Your task to perform on an android device: Add razer huntsman to the cart on costco.com Image 0: 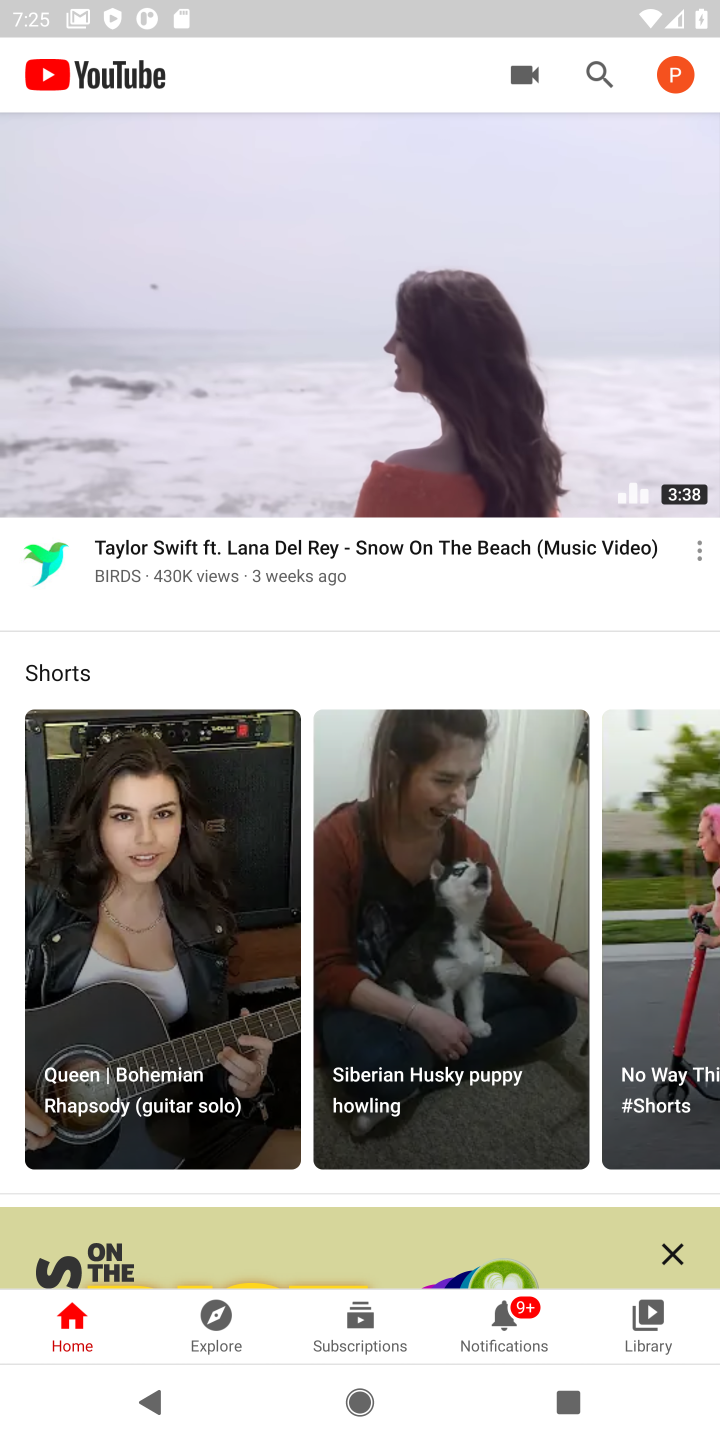
Step 0: press home button
Your task to perform on an android device: Add razer huntsman to the cart on costco.com Image 1: 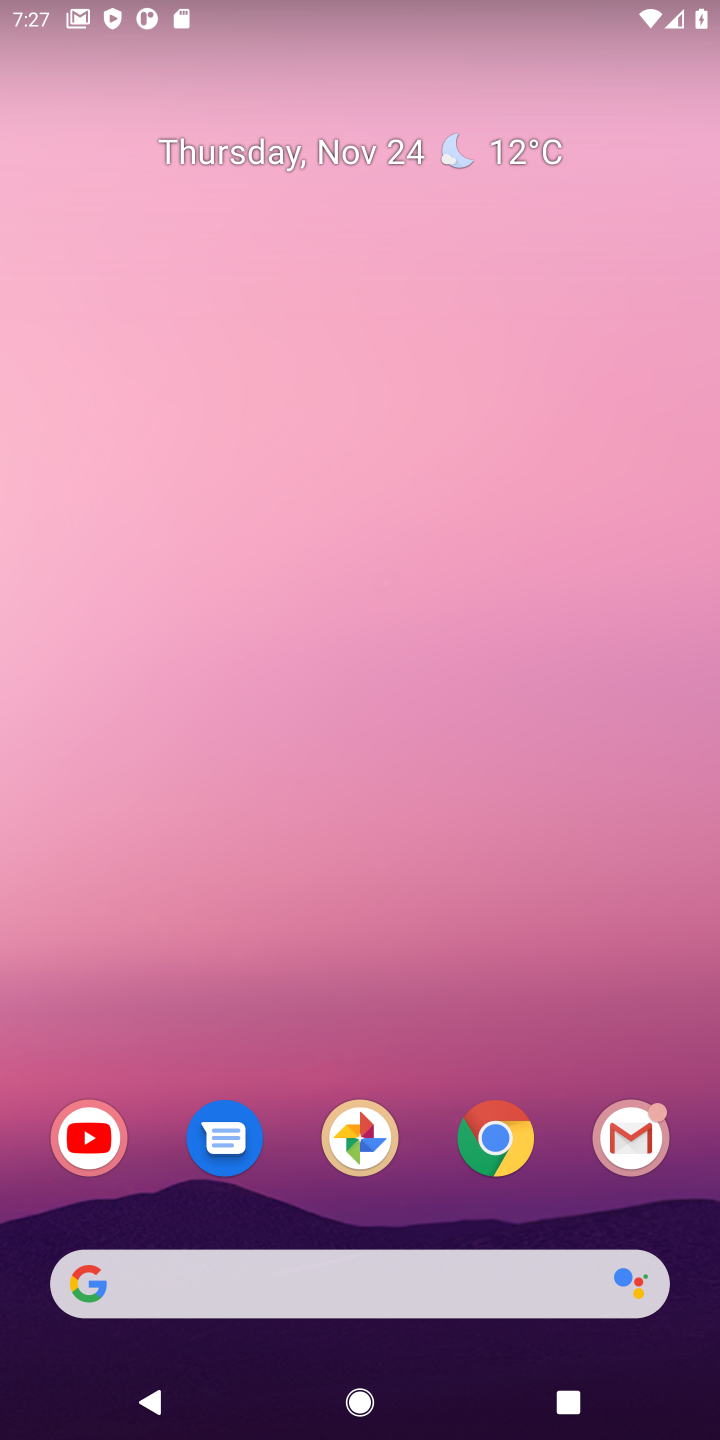
Step 1: click (489, 1150)
Your task to perform on an android device: Add razer huntsman to the cart on costco.com Image 2: 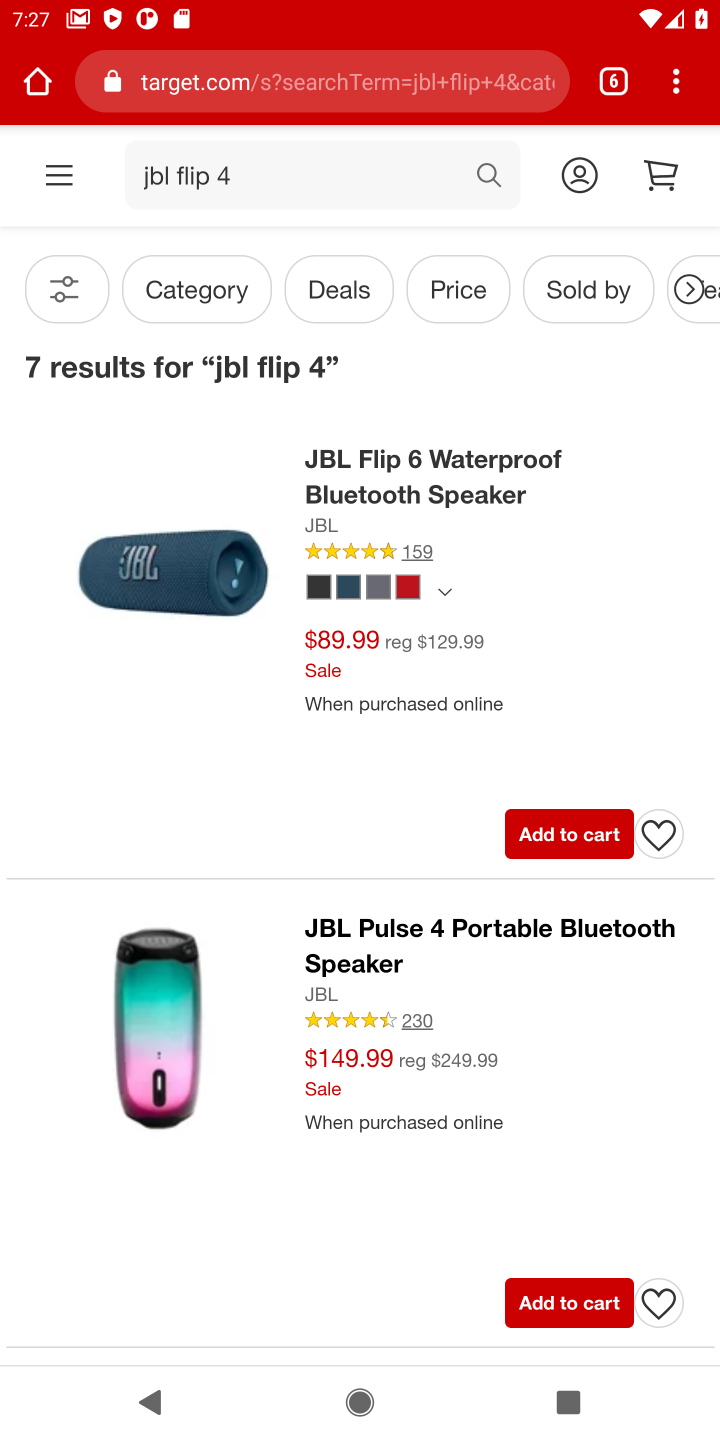
Step 2: click (622, 70)
Your task to perform on an android device: Add razer huntsman to the cart on costco.com Image 3: 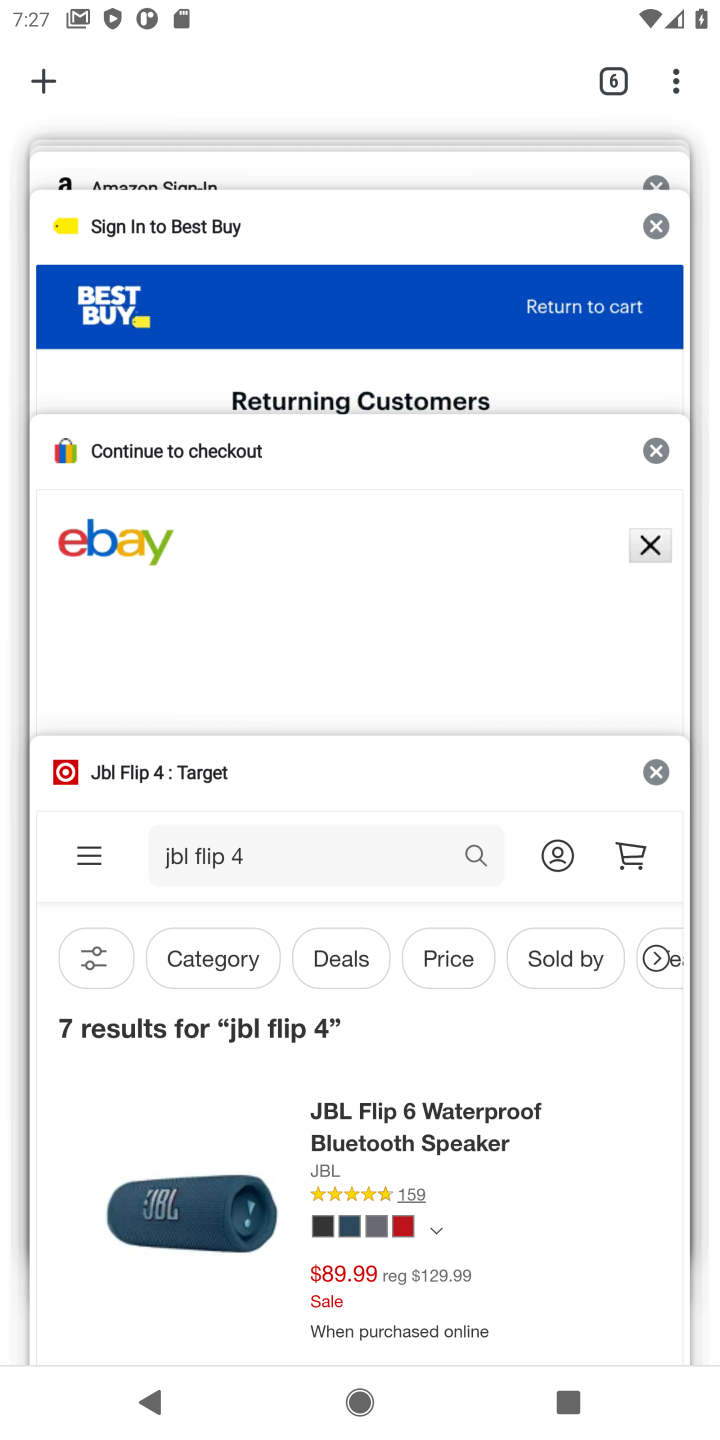
Step 3: drag from (212, 264) to (307, 1374)
Your task to perform on an android device: Add razer huntsman to the cart on costco.com Image 4: 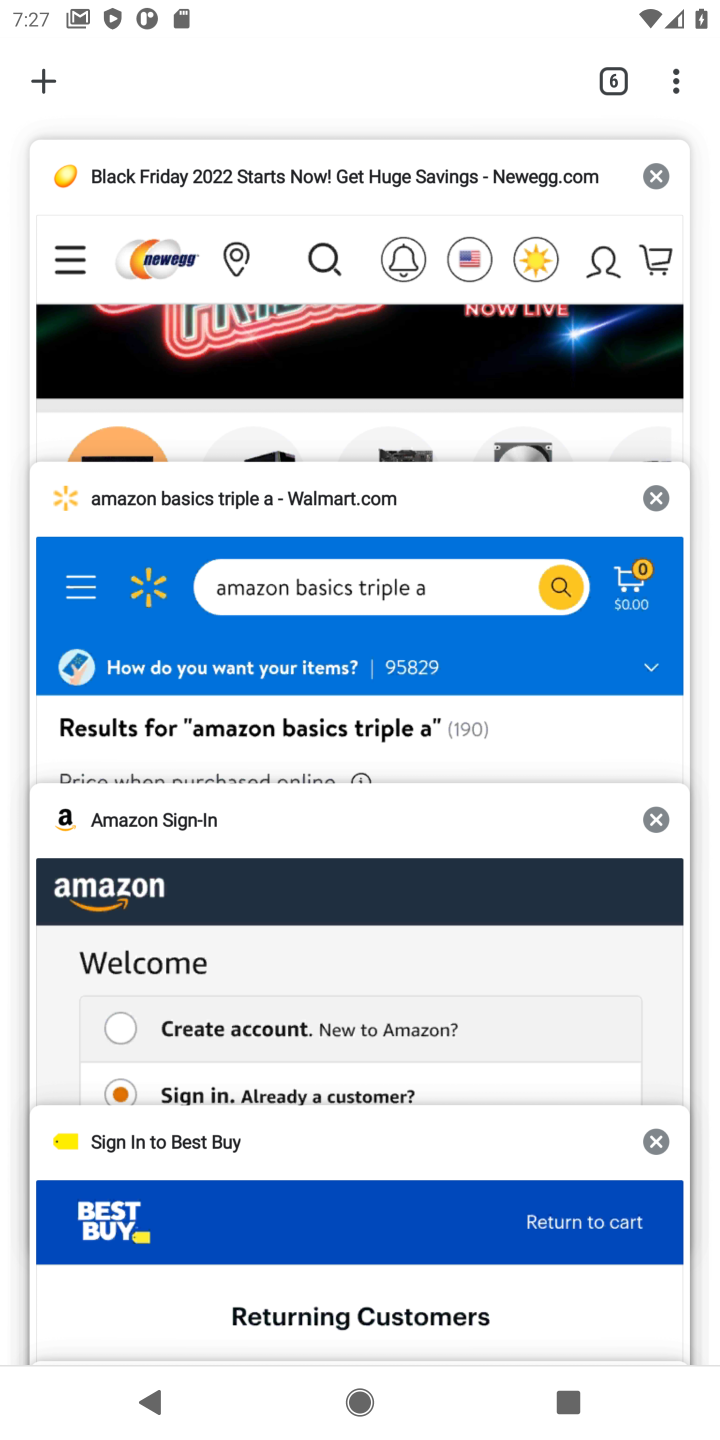
Step 4: click (45, 87)
Your task to perform on an android device: Add razer huntsman to the cart on costco.com Image 5: 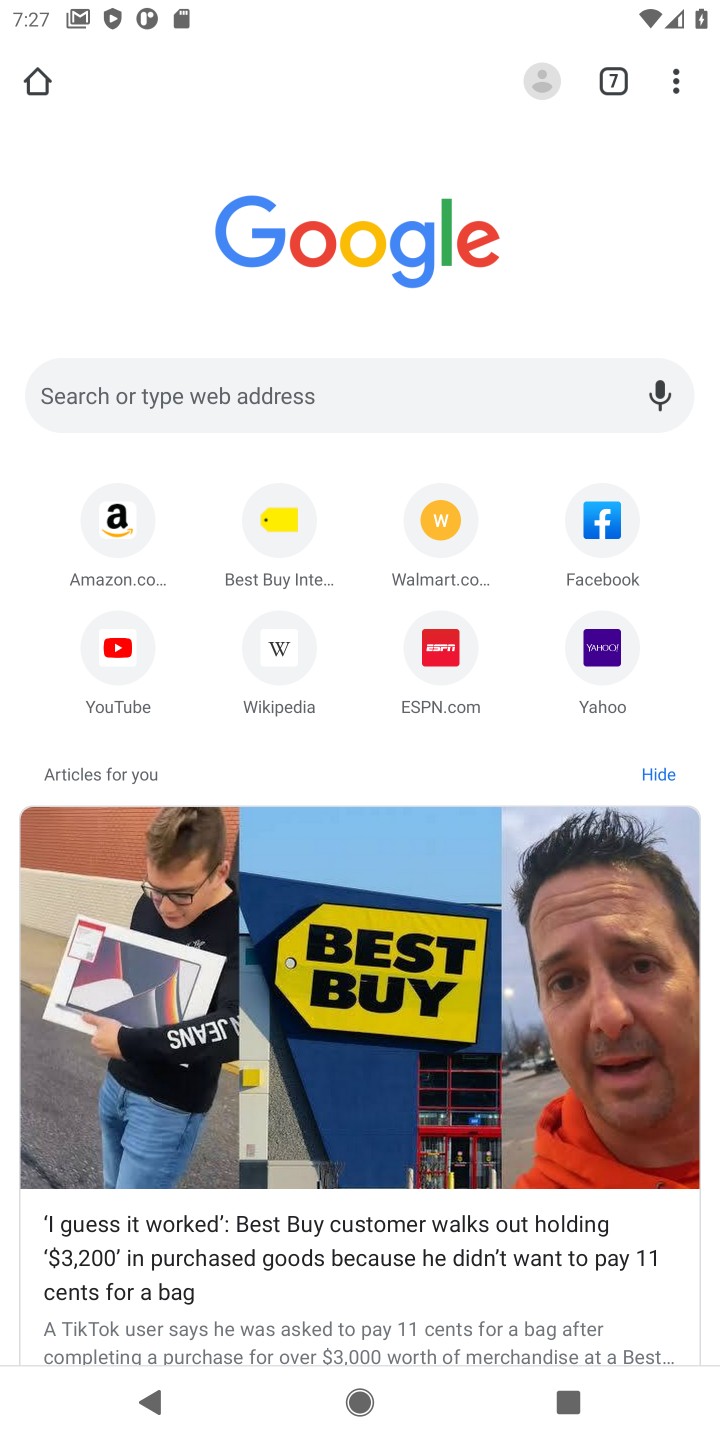
Step 5: click (146, 404)
Your task to perform on an android device: Add razer huntsman to the cart on costco.com Image 6: 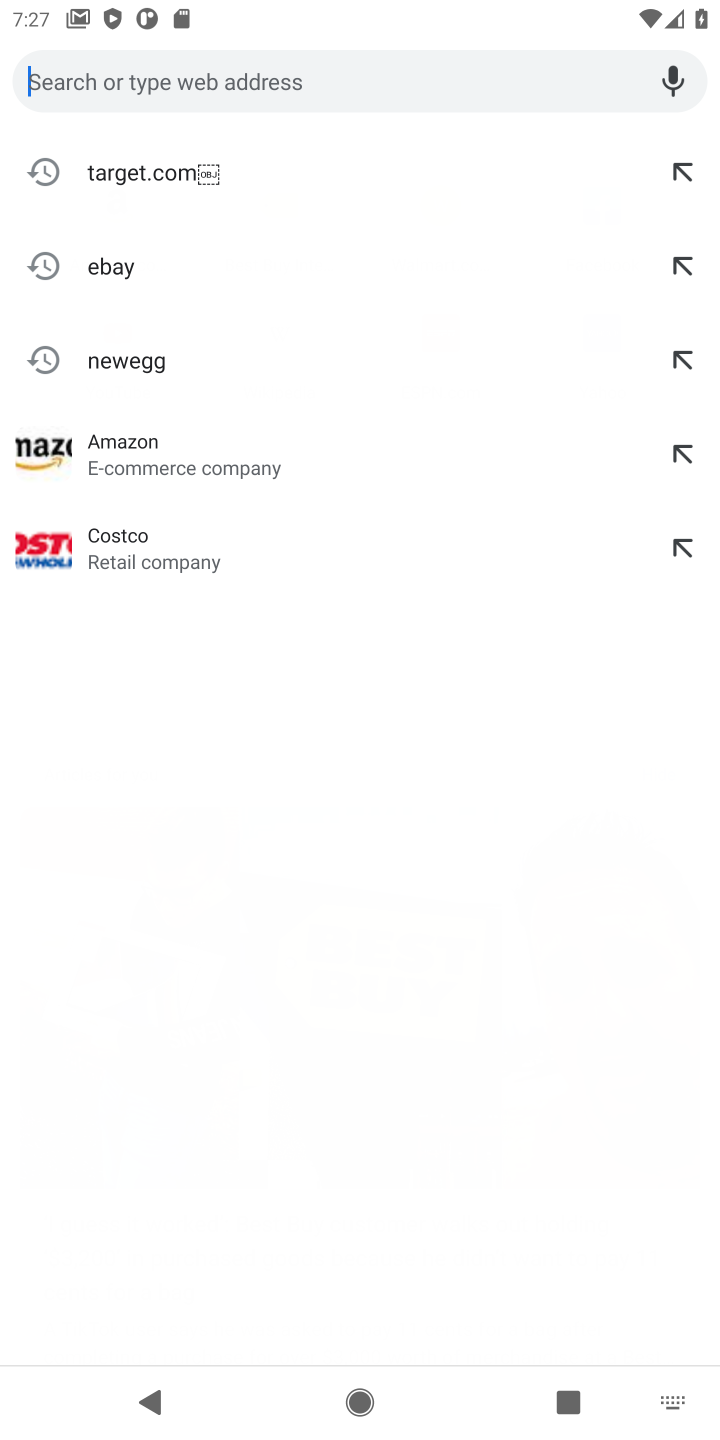
Step 6: click (146, 404)
Your task to perform on an android device: Add razer huntsman to the cart on costco.com Image 7: 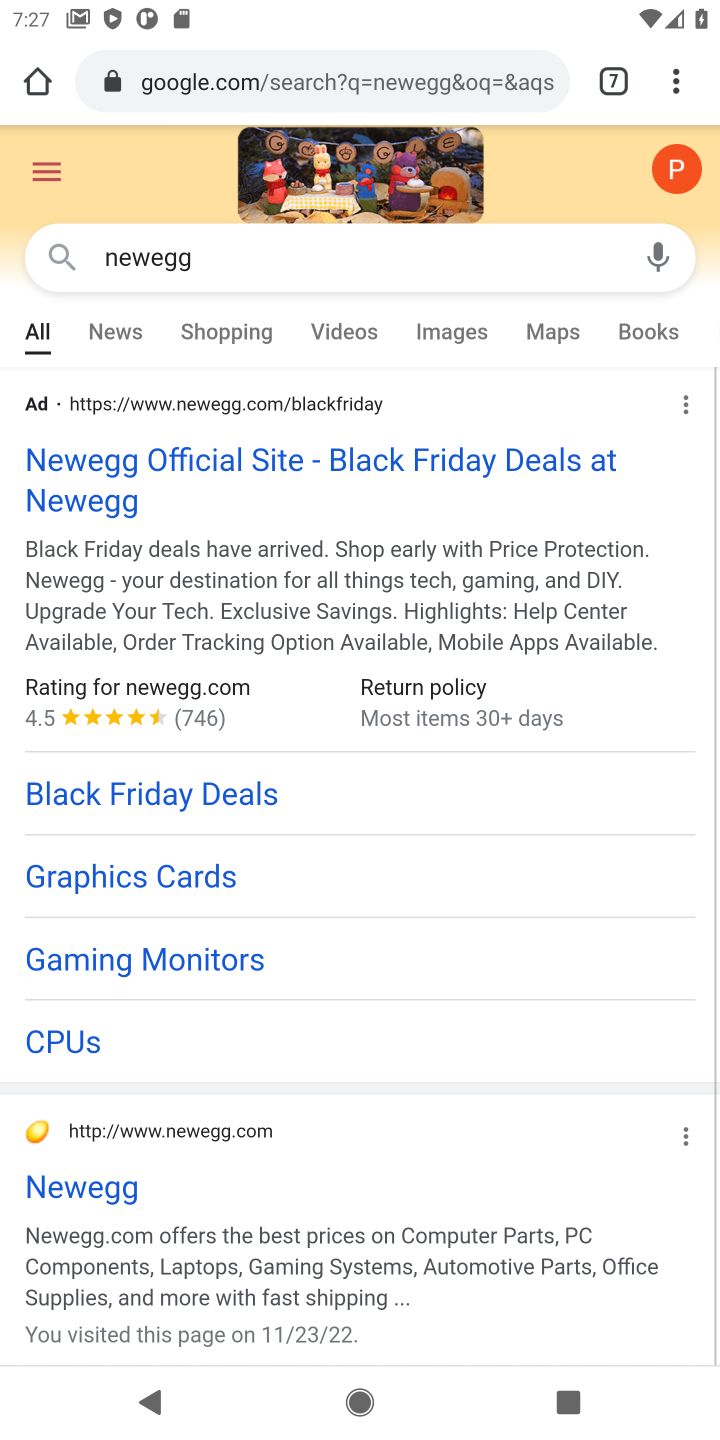
Step 7: press back button
Your task to perform on an android device: Add razer huntsman to the cart on costco.com Image 8: 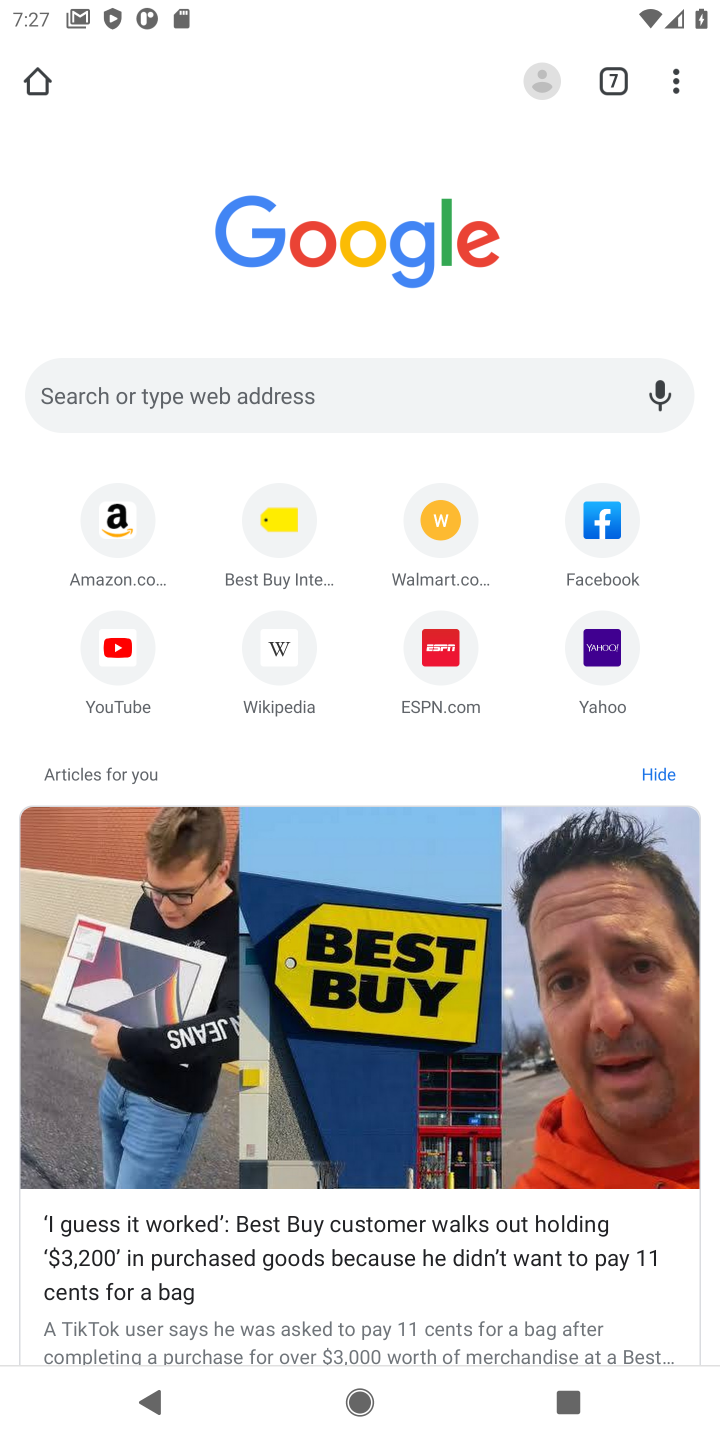
Step 8: click (152, 412)
Your task to perform on an android device: Add razer huntsman to the cart on costco.com Image 9: 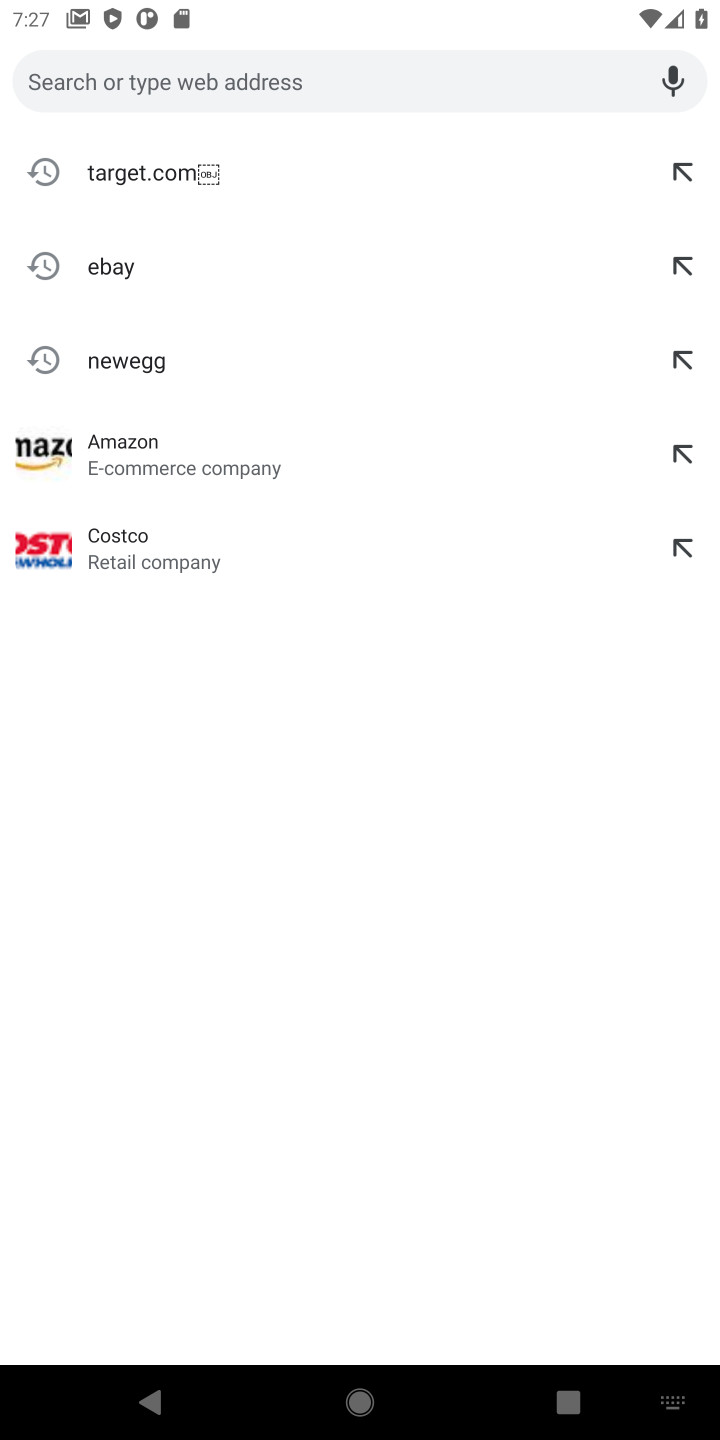
Step 9: click (123, 550)
Your task to perform on an android device: Add razer huntsman to the cart on costco.com Image 10: 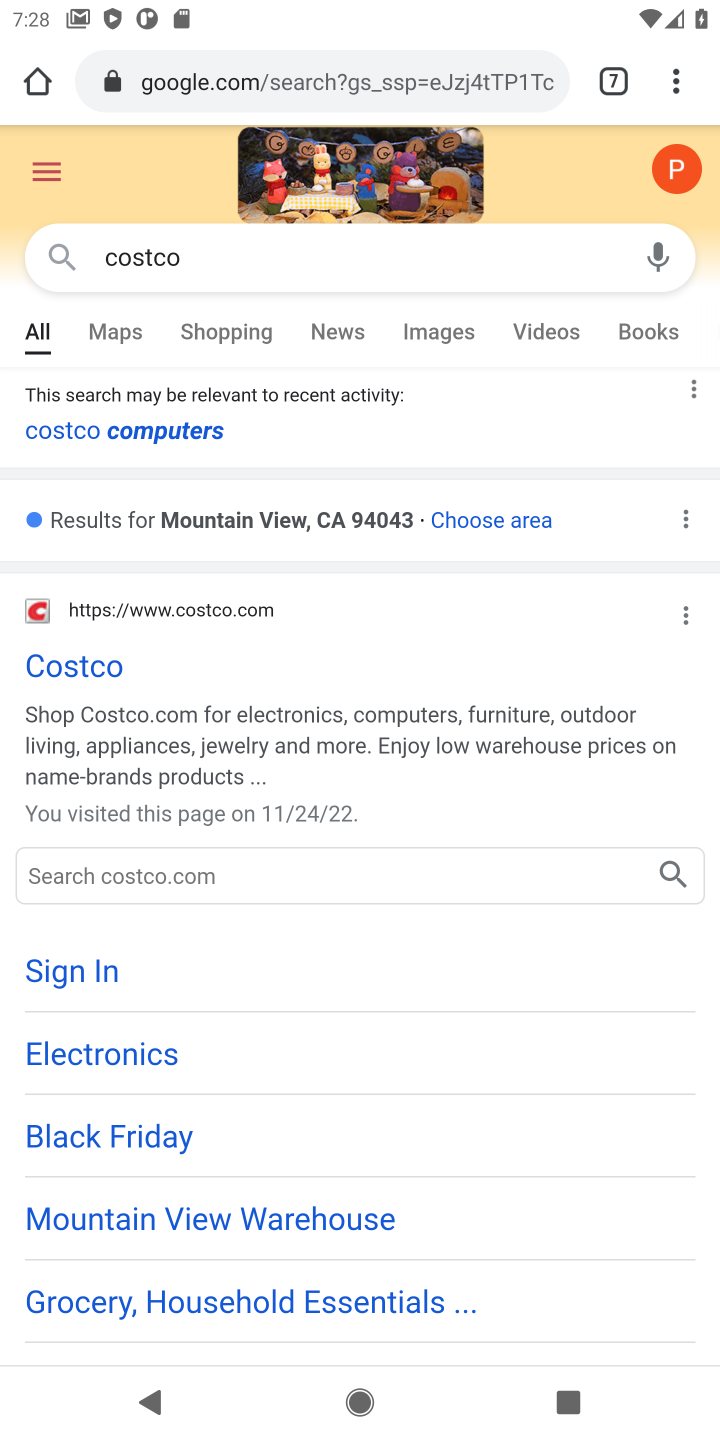
Step 10: click (80, 660)
Your task to perform on an android device: Add razer huntsman to the cart on costco.com Image 11: 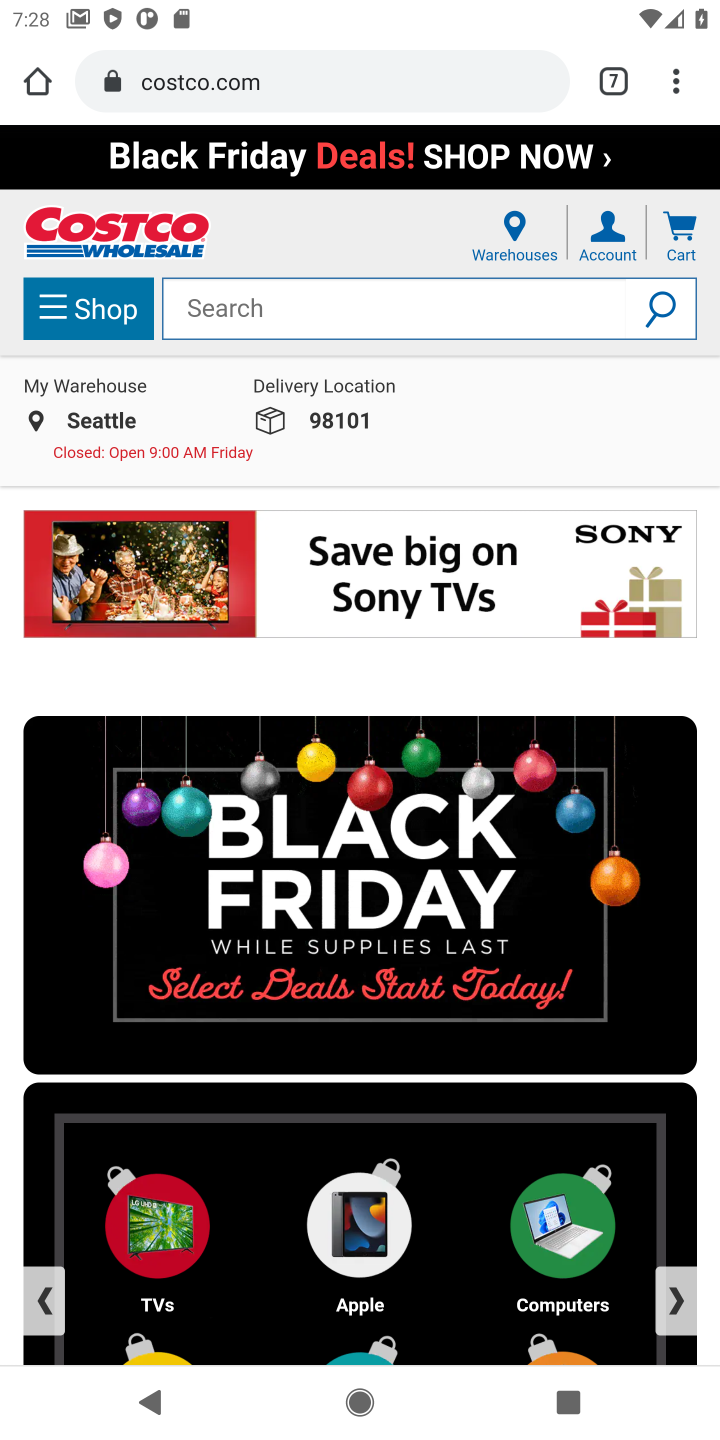
Step 11: drag from (382, 863) to (352, 969)
Your task to perform on an android device: Add razer huntsman to the cart on costco.com Image 12: 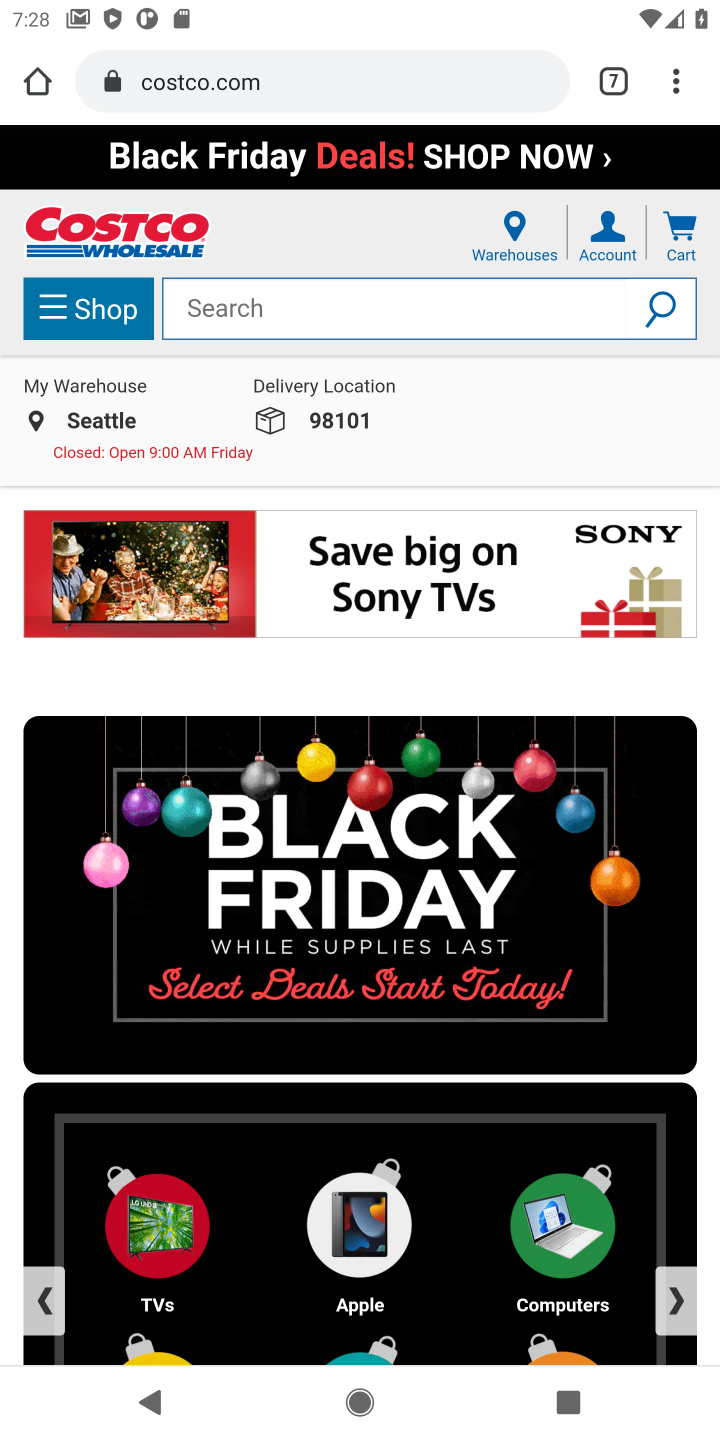
Step 12: click (246, 317)
Your task to perform on an android device: Add razer huntsman to the cart on costco.com Image 13: 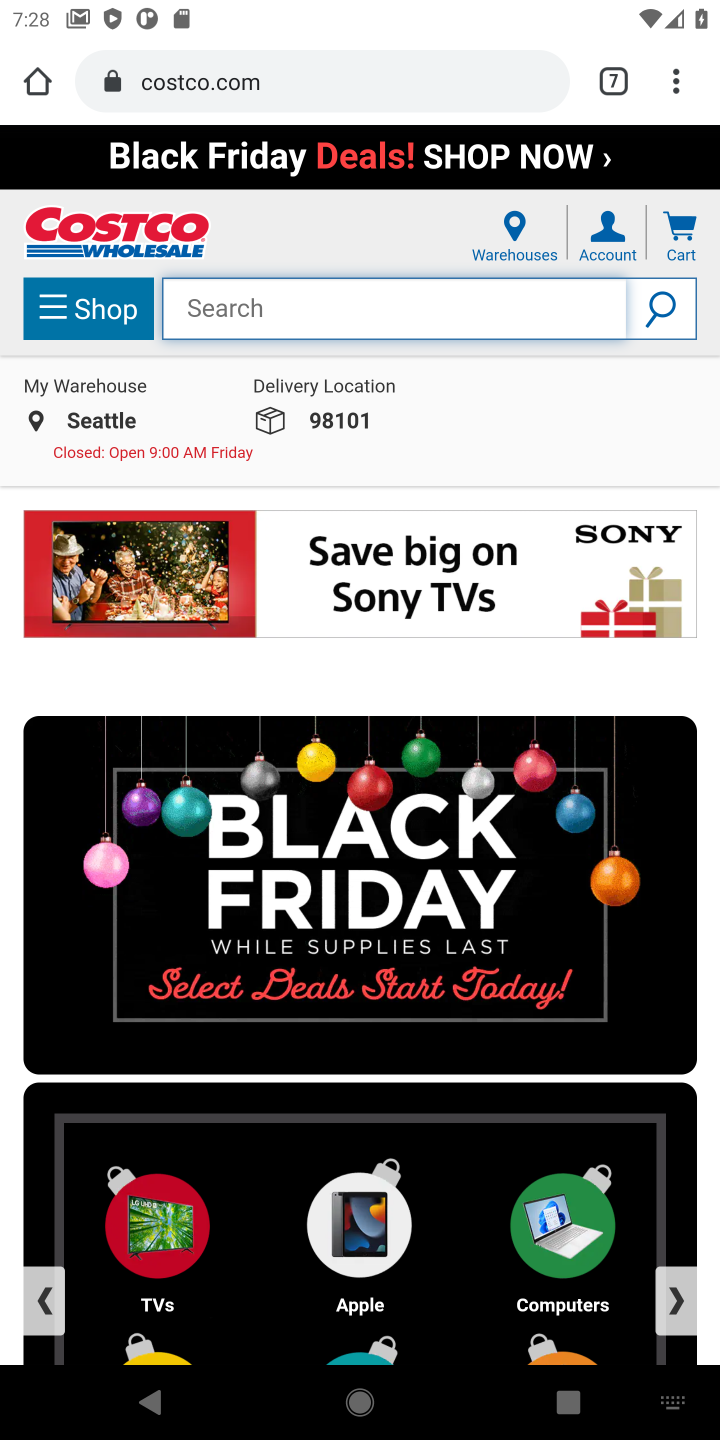
Step 13: type "razer huntsman"
Your task to perform on an android device: Add razer huntsman to the cart on costco.com Image 14: 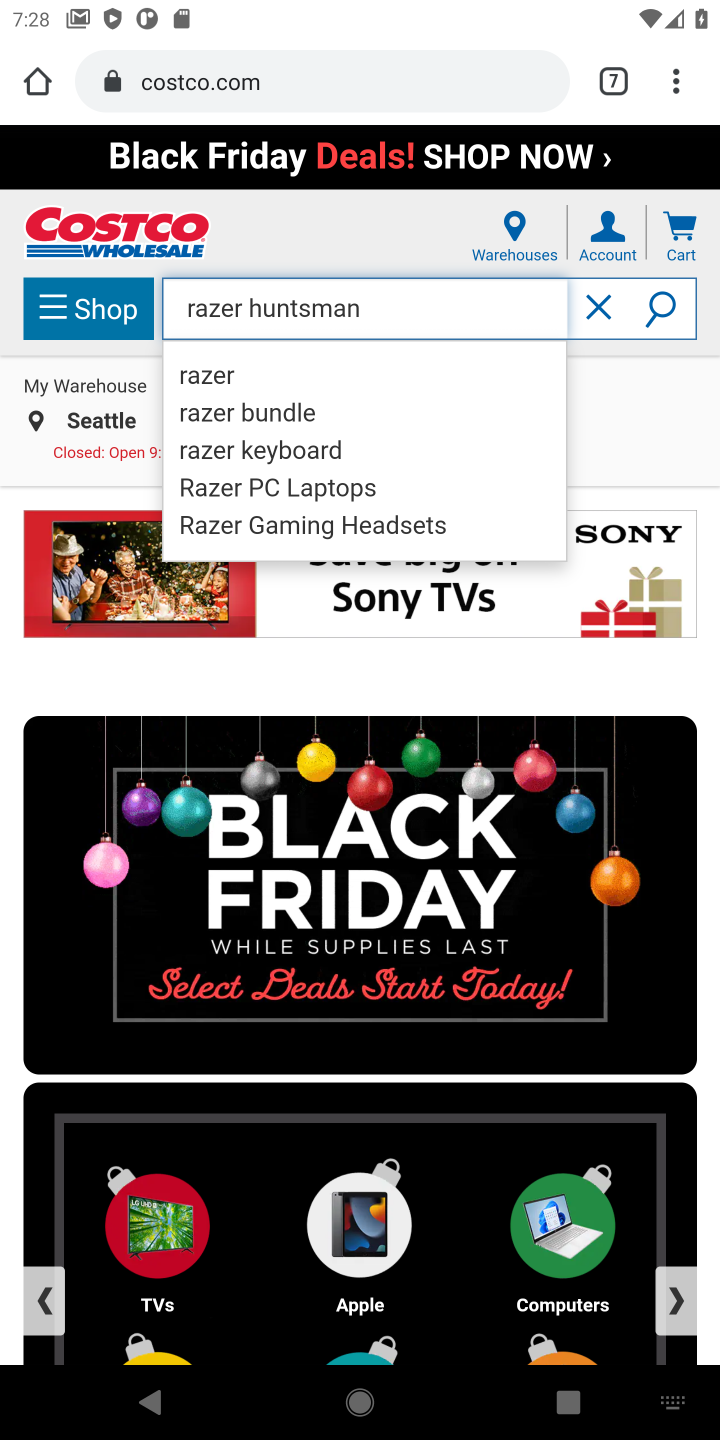
Step 14: click (214, 370)
Your task to perform on an android device: Add razer huntsman to the cart on costco.com Image 15: 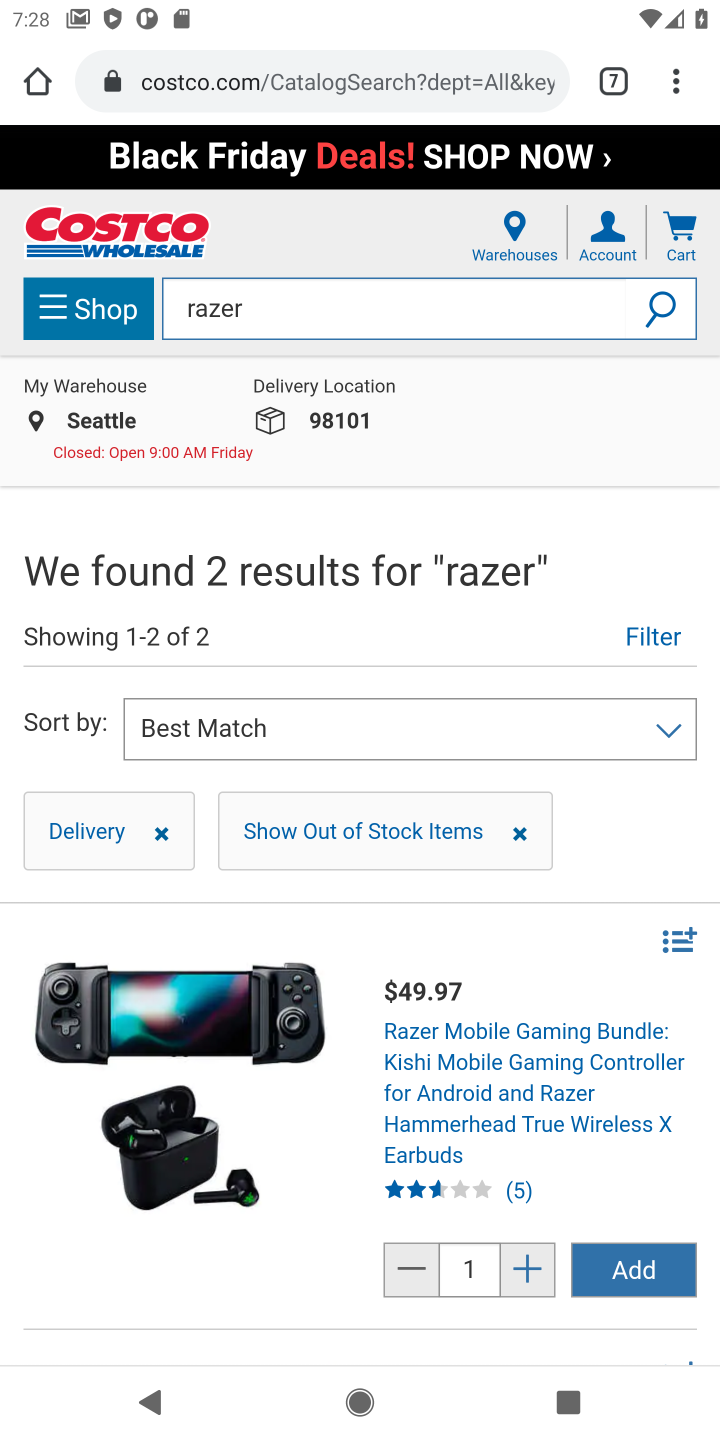
Step 15: click (652, 1265)
Your task to perform on an android device: Add razer huntsman to the cart on costco.com Image 16: 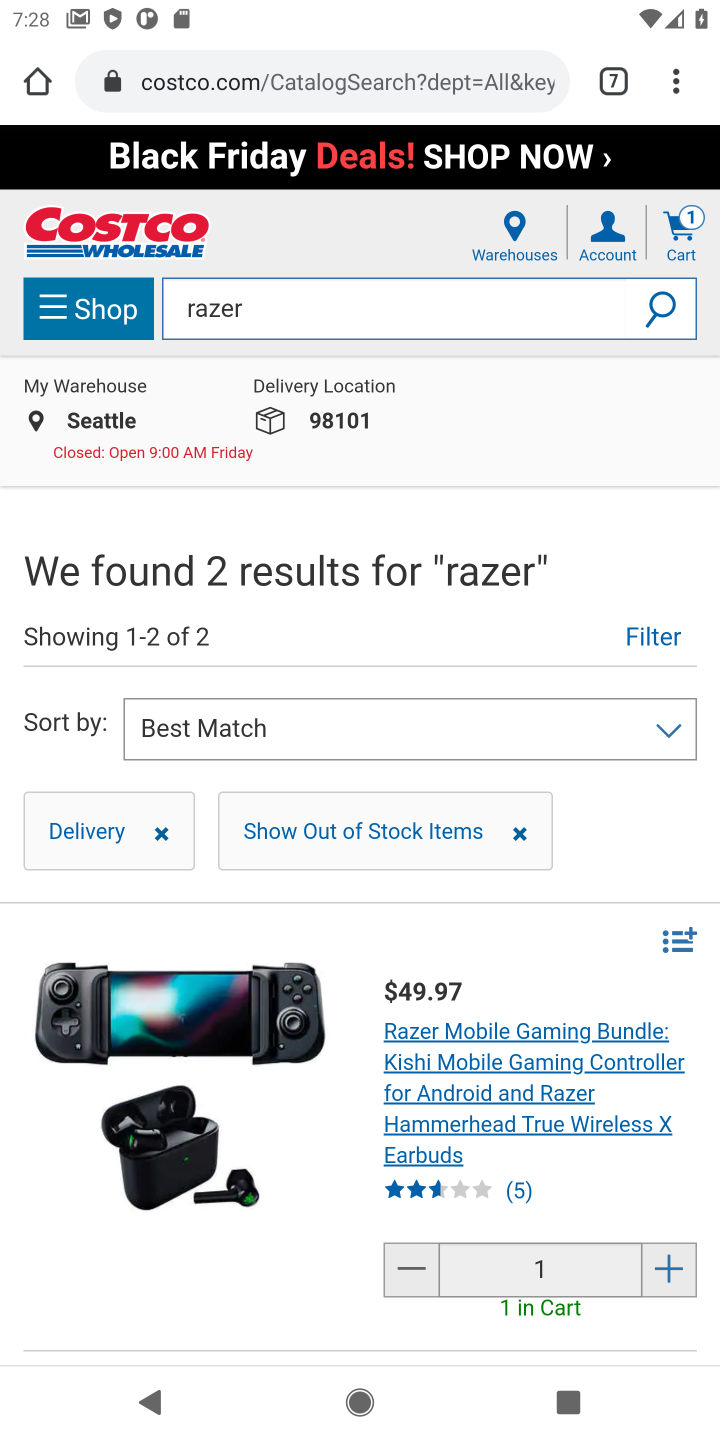
Step 16: task complete